Your task to perform on an android device: What's the weather? Image 0: 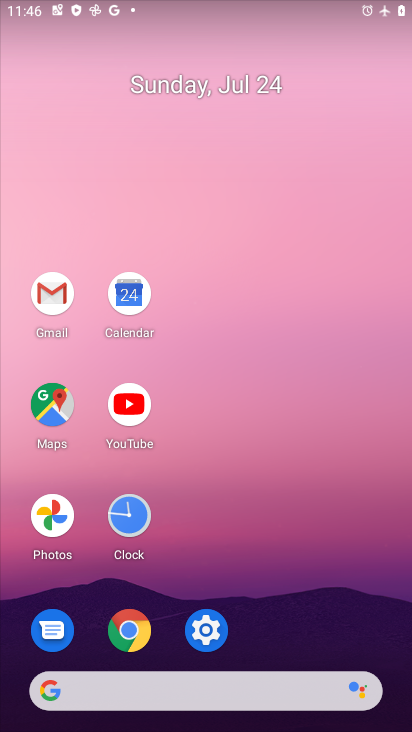
Step 0: click (174, 689)
Your task to perform on an android device: What's the weather? Image 1: 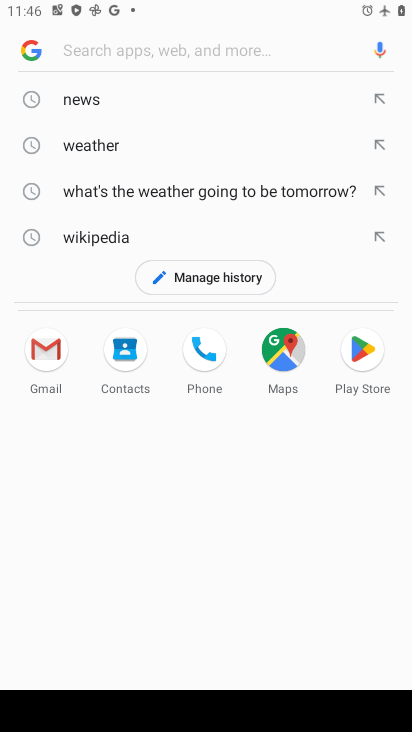
Step 1: click (102, 139)
Your task to perform on an android device: What's the weather? Image 2: 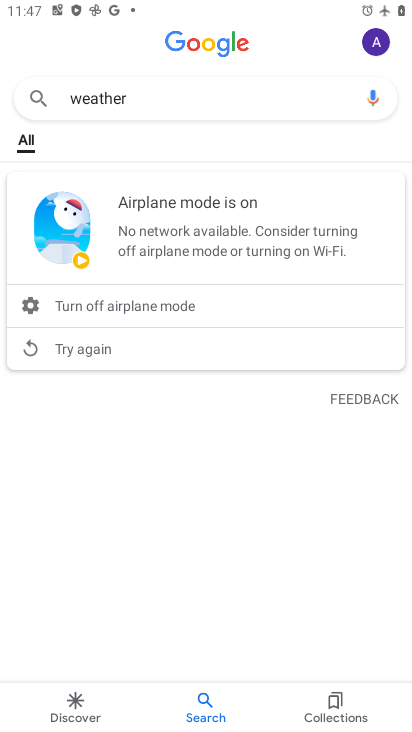
Step 2: task complete